Your task to perform on an android device: turn off notifications settings in the gmail app Image 0: 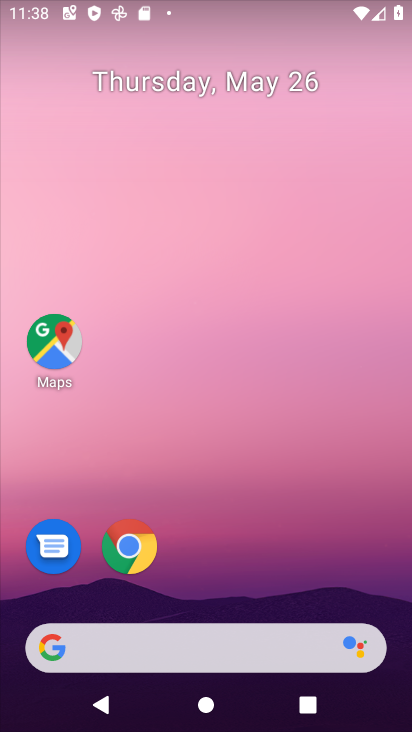
Step 0: drag from (232, 567) to (257, 91)
Your task to perform on an android device: turn off notifications settings in the gmail app Image 1: 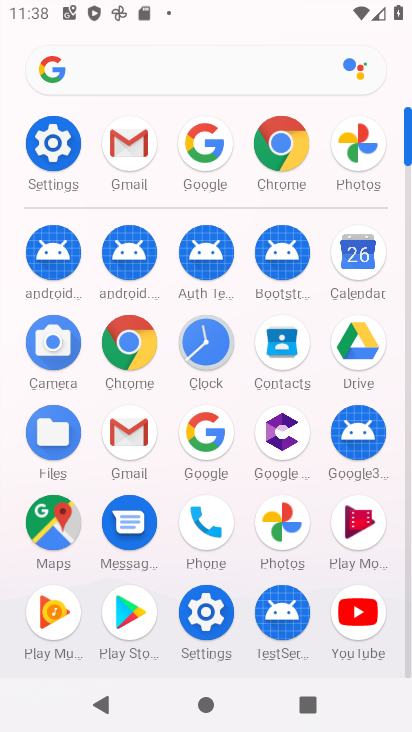
Step 1: click (132, 138)
Your task to perform on an android device: turn off notifications settings in the gmail app Image 2: 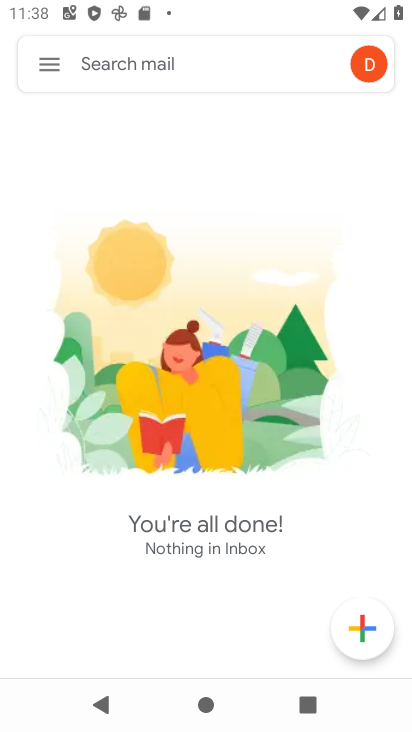
Step 2: click (52, 64)
Your task to perform on an android device: turn off notifications settings in the gmail app Image 3: 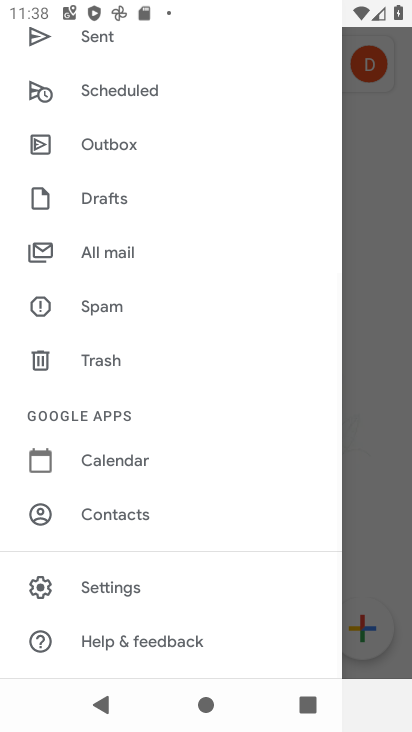
Step 3: click (132, 591)
Your task to perform on an android device: turn off notifications settings in the gmail app Image 4: 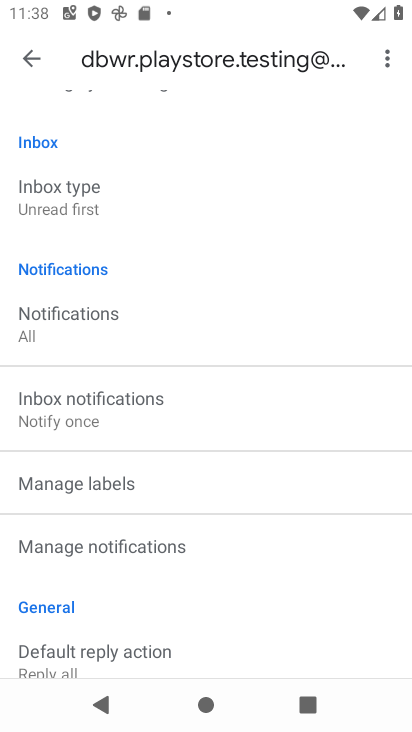
Step 4: click (85, 331)
Your task to perform on an android device: turn off notifications settings in the gmail app Image 5: 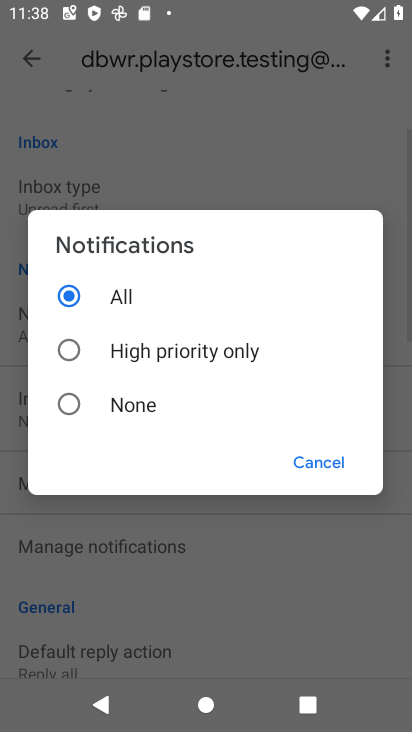
Step 5: click (88, 399)
Your task to perform on an android device: turn off notifications settings in the gmail app Image 6: 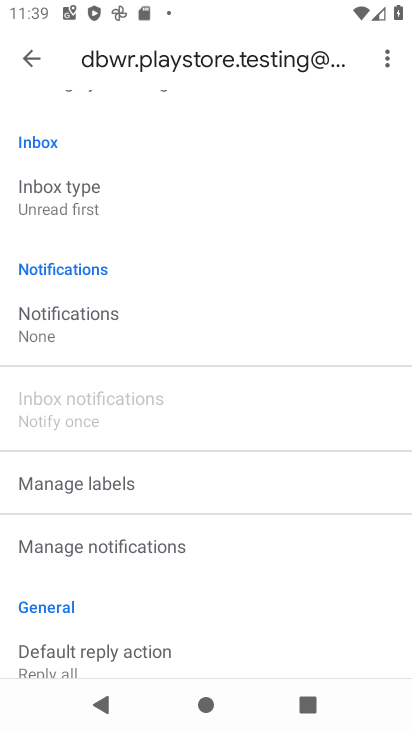
Step 6: task complete